Your task to perform on an android device: check data usage Image 0: 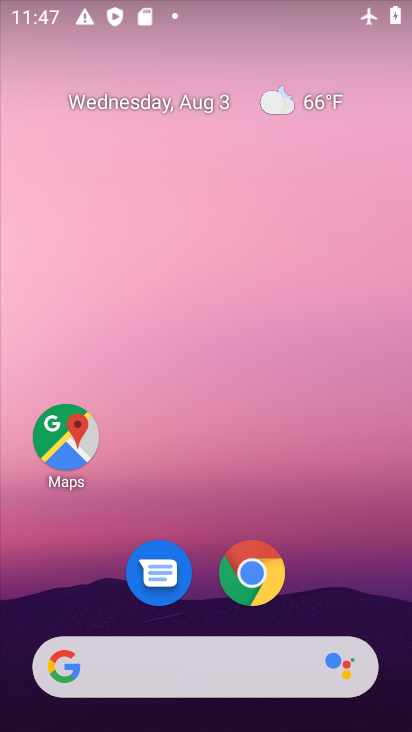
Step 0: drag from (382, 528) to (226, 0)
Your task to perform on an android device: check data usage Image 1: 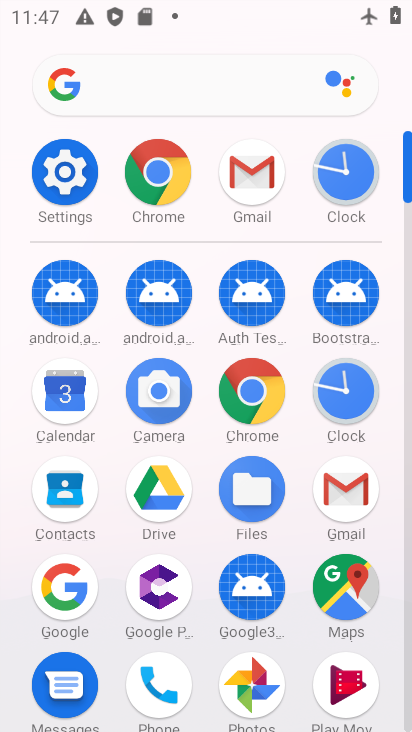
Step 1: click (70, 181)
Your task to perform on an android device: check data usage Image 2: 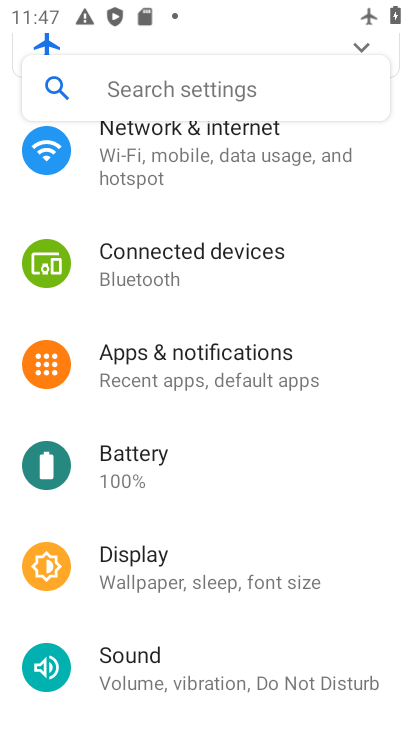
Step 2: click (186, 166)
Your task to perform on an android device: check data usage Image 3: 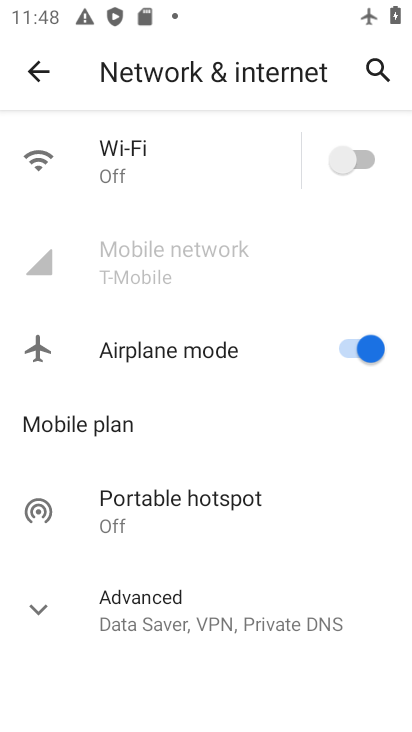
Step 3: task complete